Your task to perform on an android device: Search for pizza restaurants on Maps Image 0: 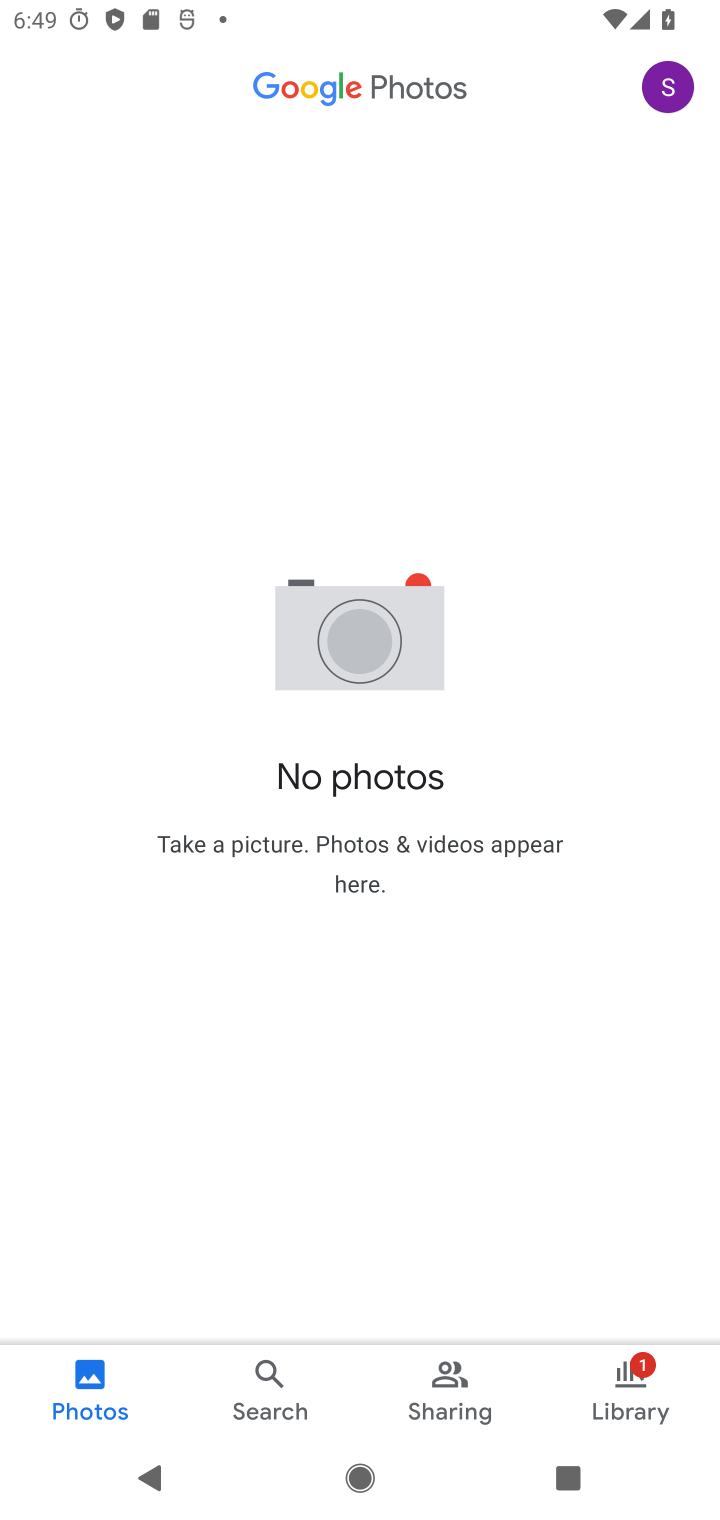
Step 0: press home button
Your task to perform on an android device: Search for pizza restaurants on Maps Image 1: 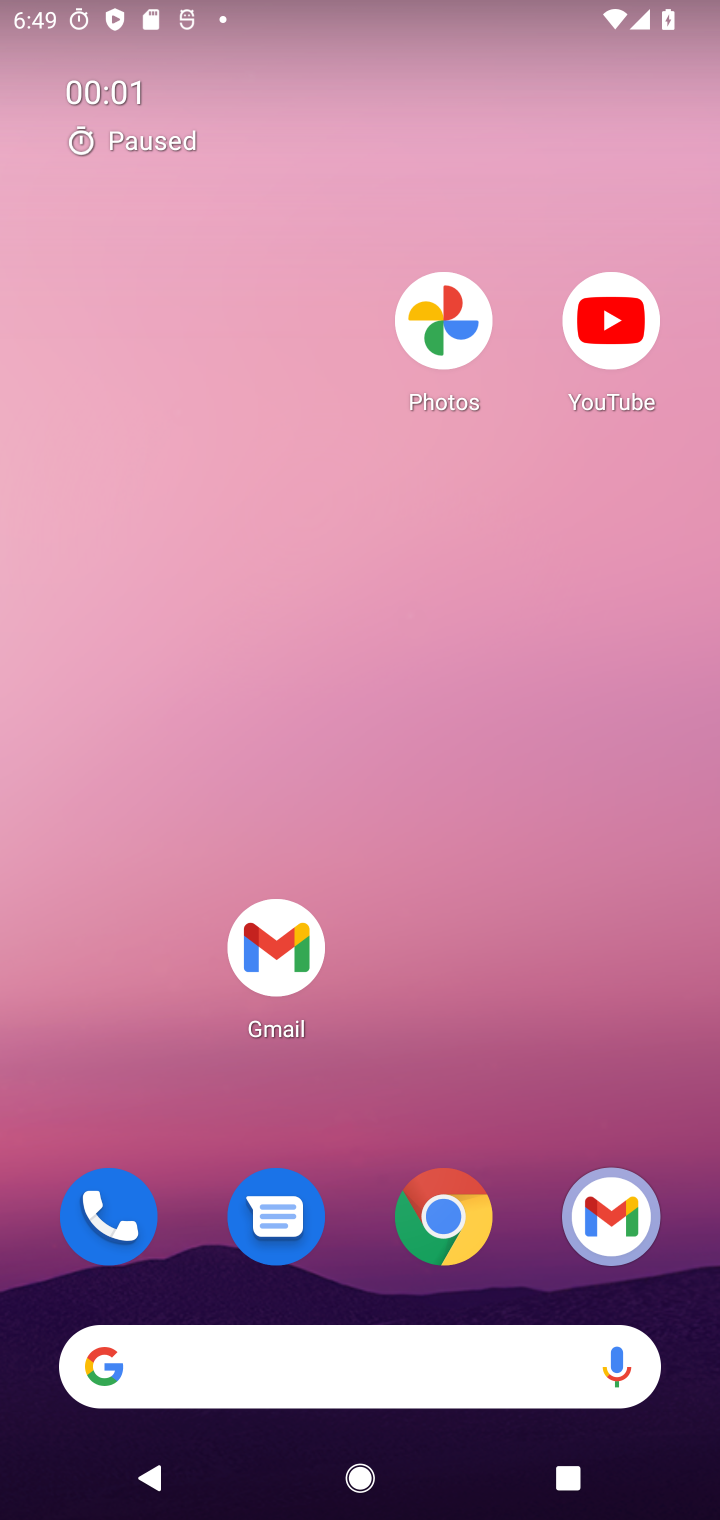
Step 1: drag from (540, 1060) to (565, 463)
Your task to perform on an android device: Search for pizza restaurants on Maps Image 2: 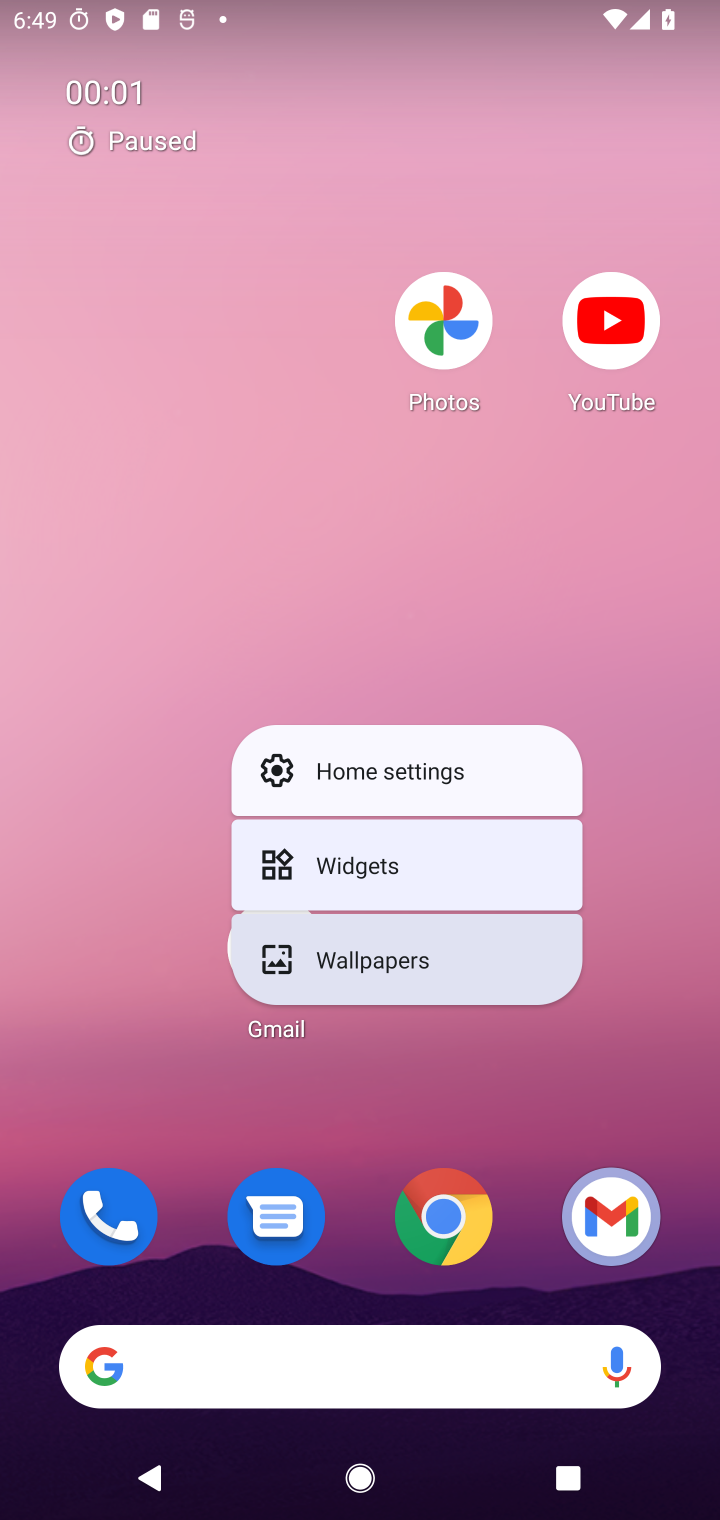
Step 2: click (240, 580)
Your task to perform on an android device: Search for pizza restaurants on Maps Image 3: 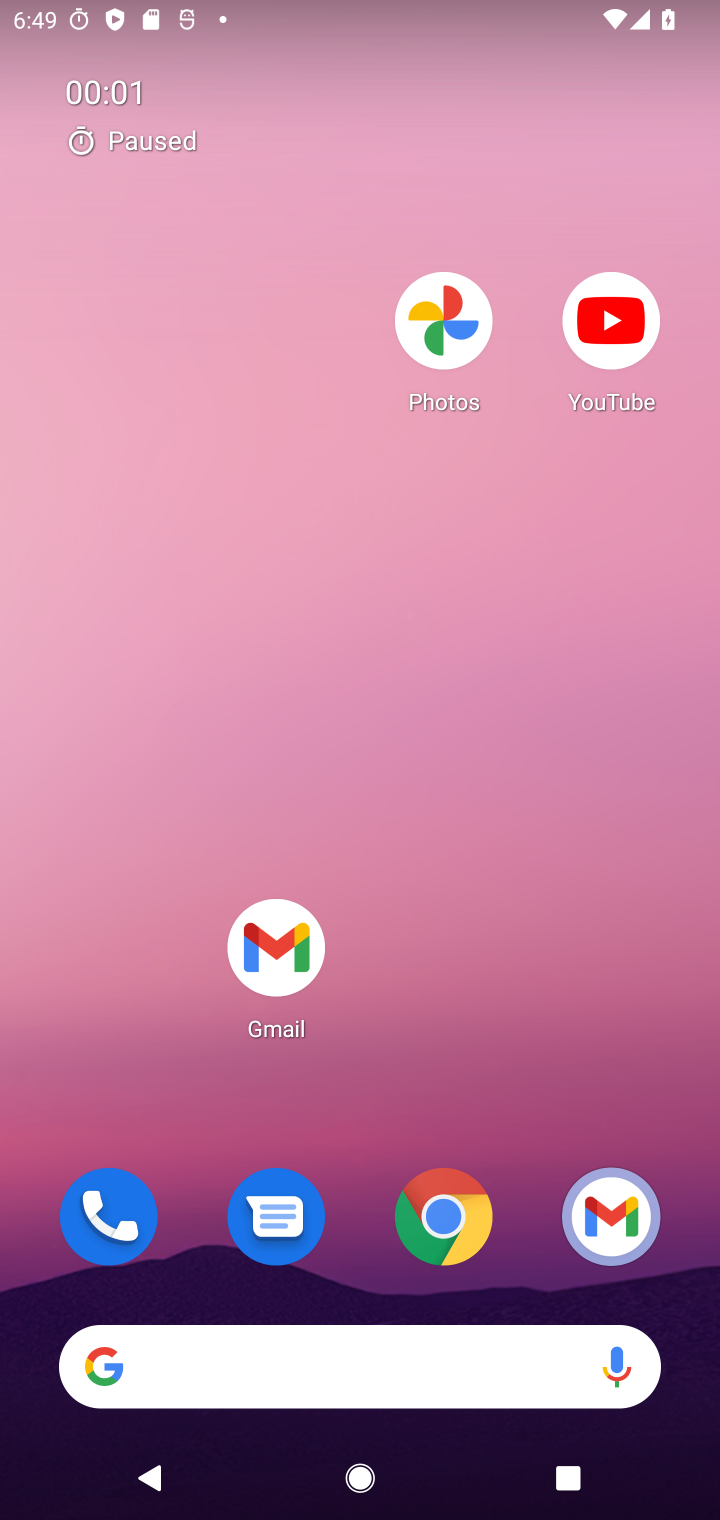
Step 3: drag from (521, 1170) to (591, 393)
Your task to perform on an android device: Search for pizza restaurants on Maps Image 4: 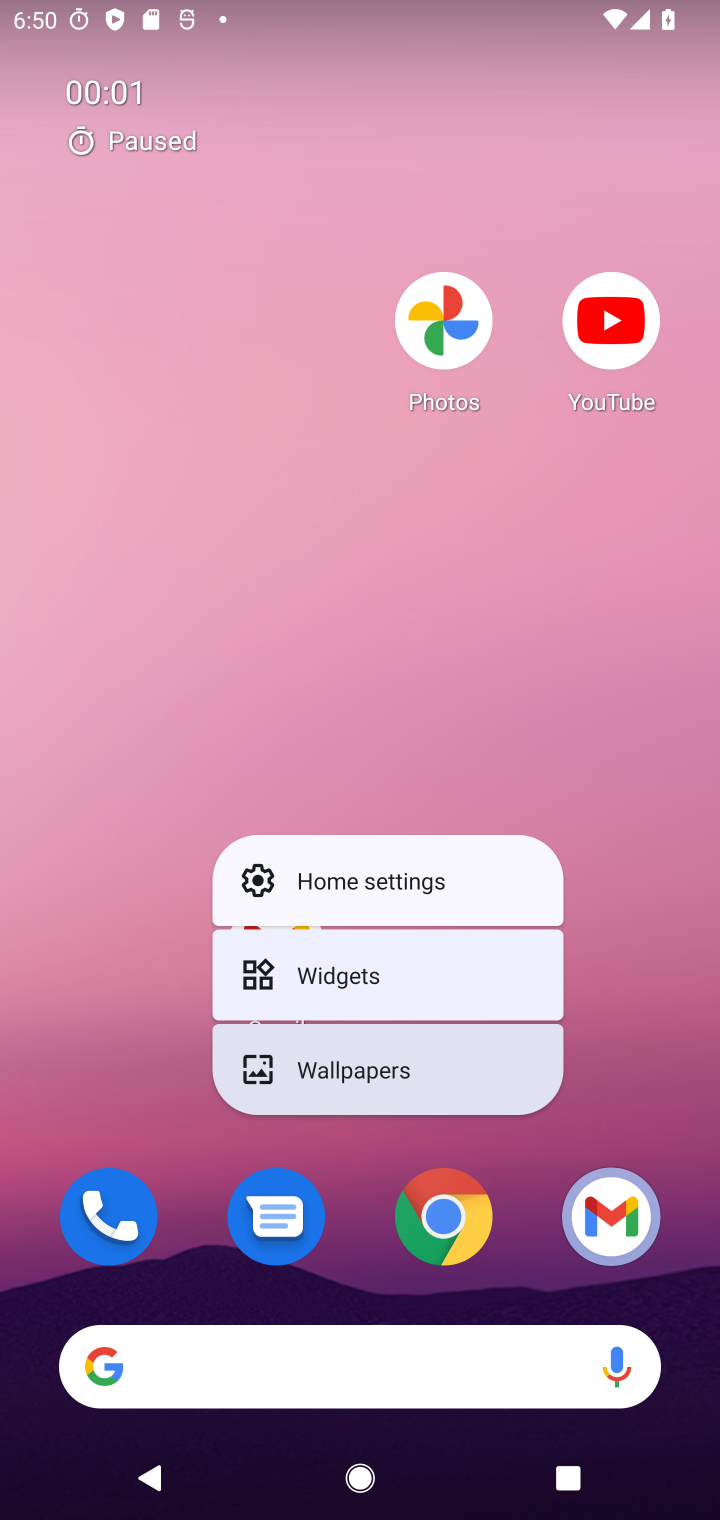
Step 4: click (359, 649)
Your task to perform on an android device: Search for pizza restaurants on Maps Image 5: 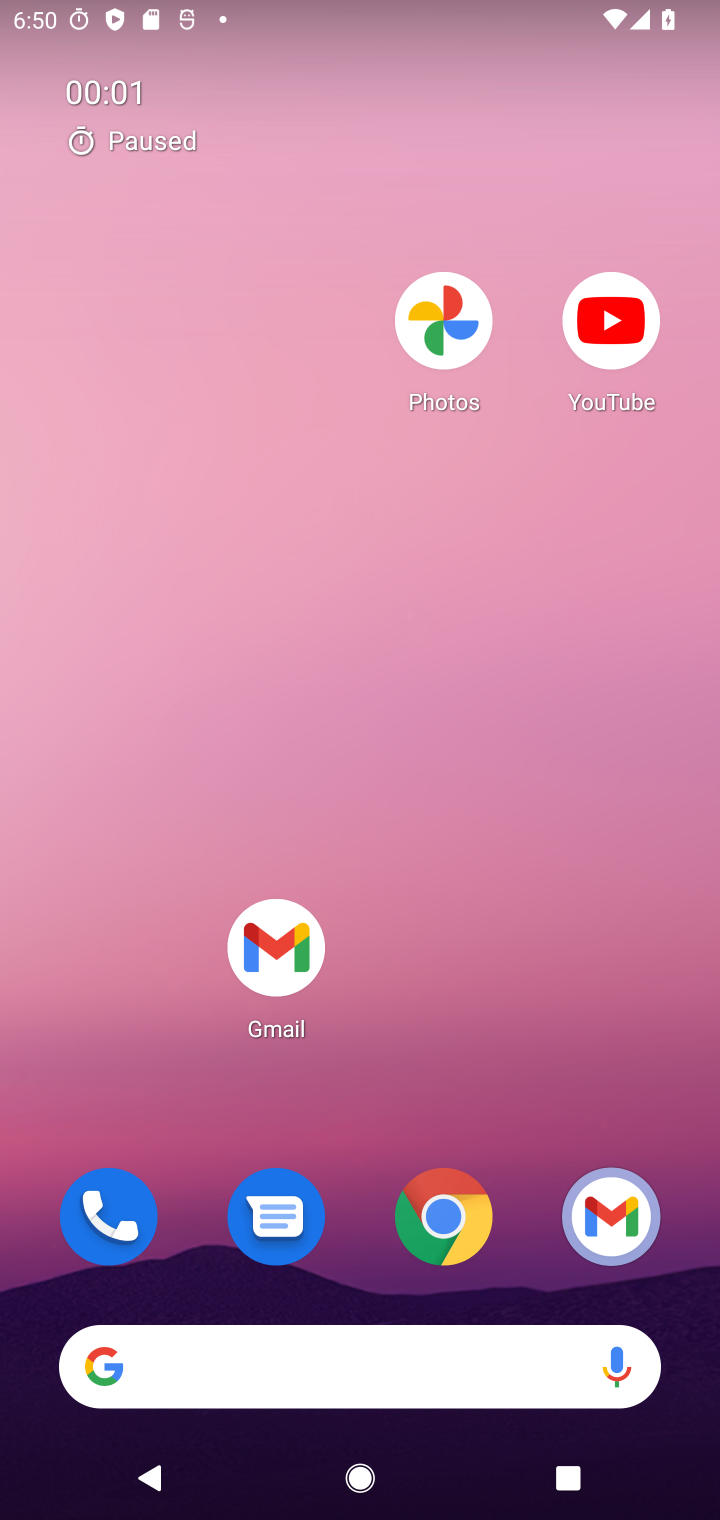
Step 5: drag from (542, 736) to (573, 420)
Your task to perform on an android device: Search for pizza restaurants on Maps Image 6: 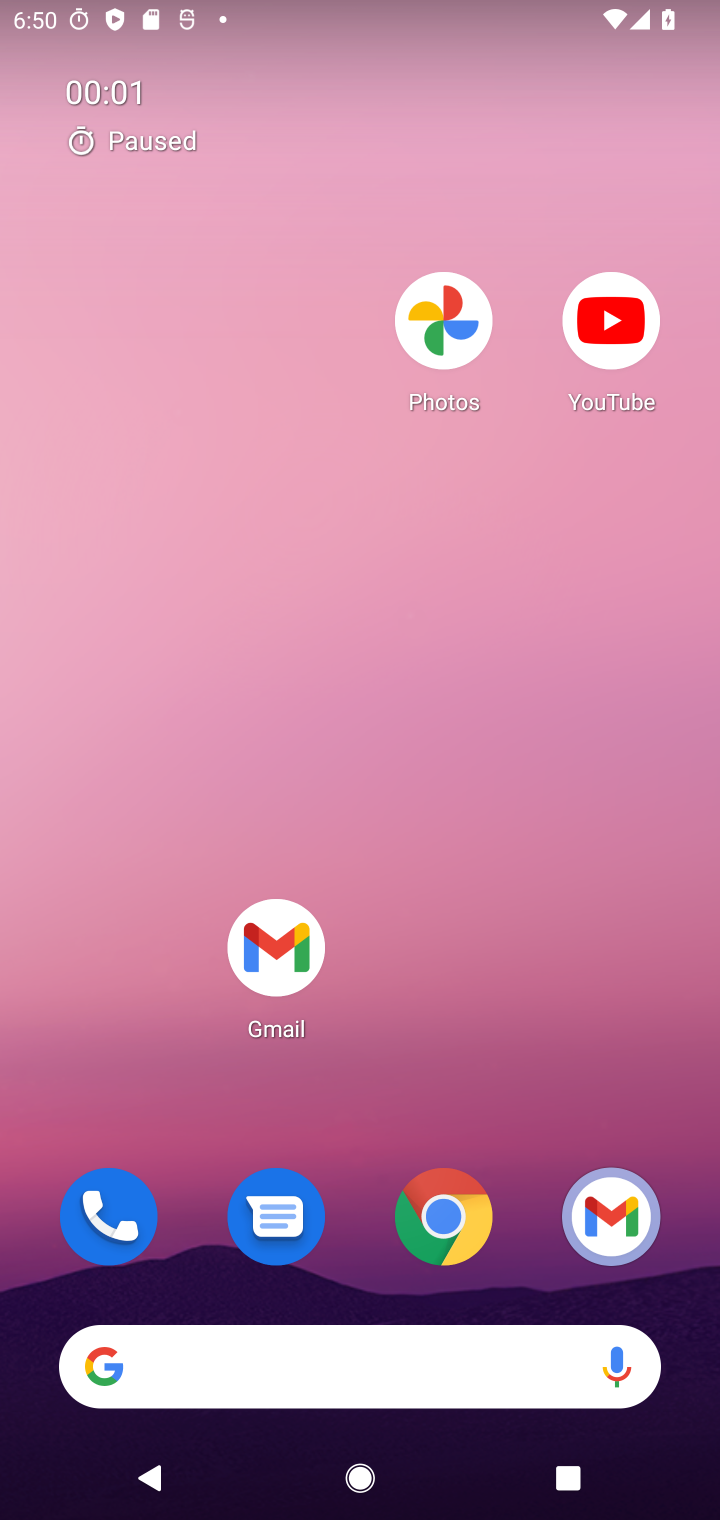
Step 6: drag from (521, 1284) to (580, 489)
Your task to perform on an android device: Search for pizza restaurants on Maps Image 7: 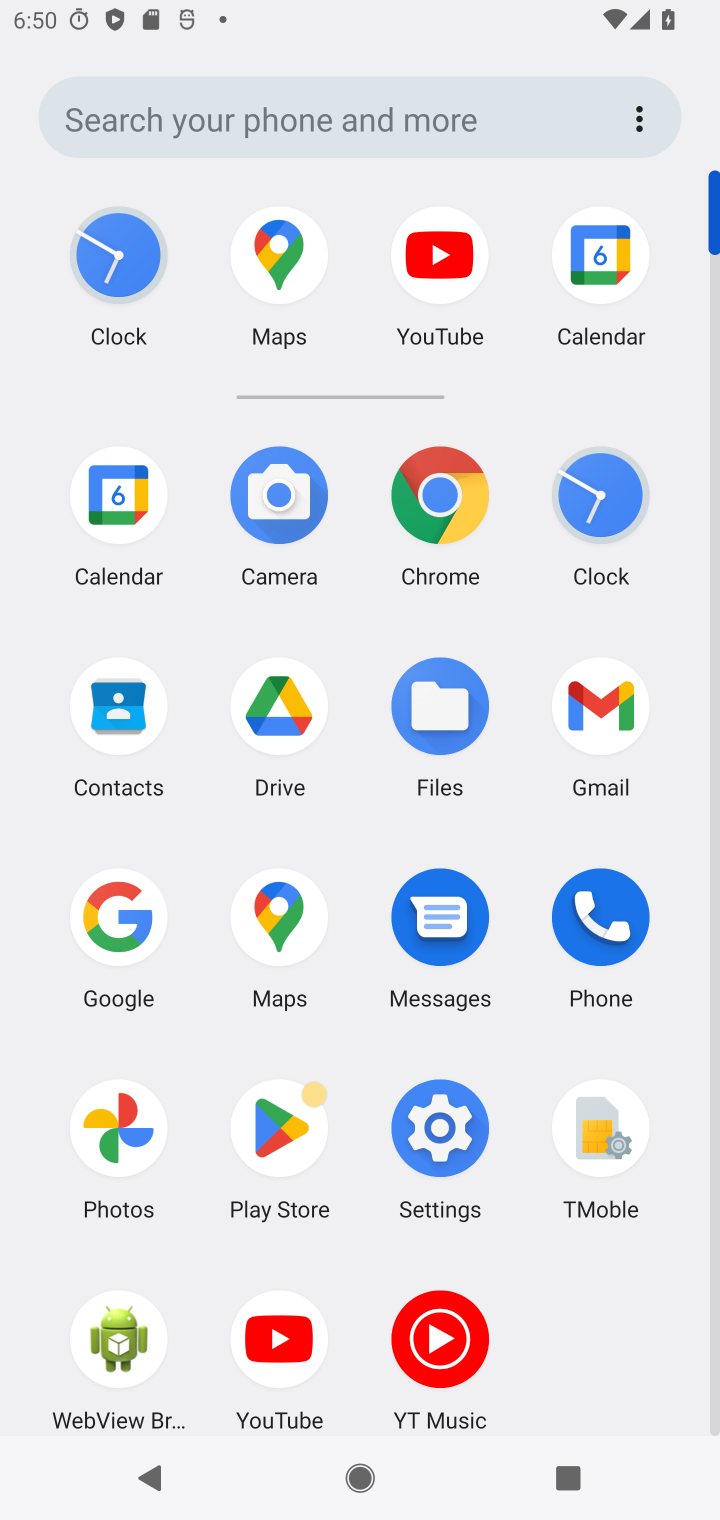
Step 7: click (287, 924)
Your task to perform on an android device: Search for pizza restaurants on Maps Image 8: 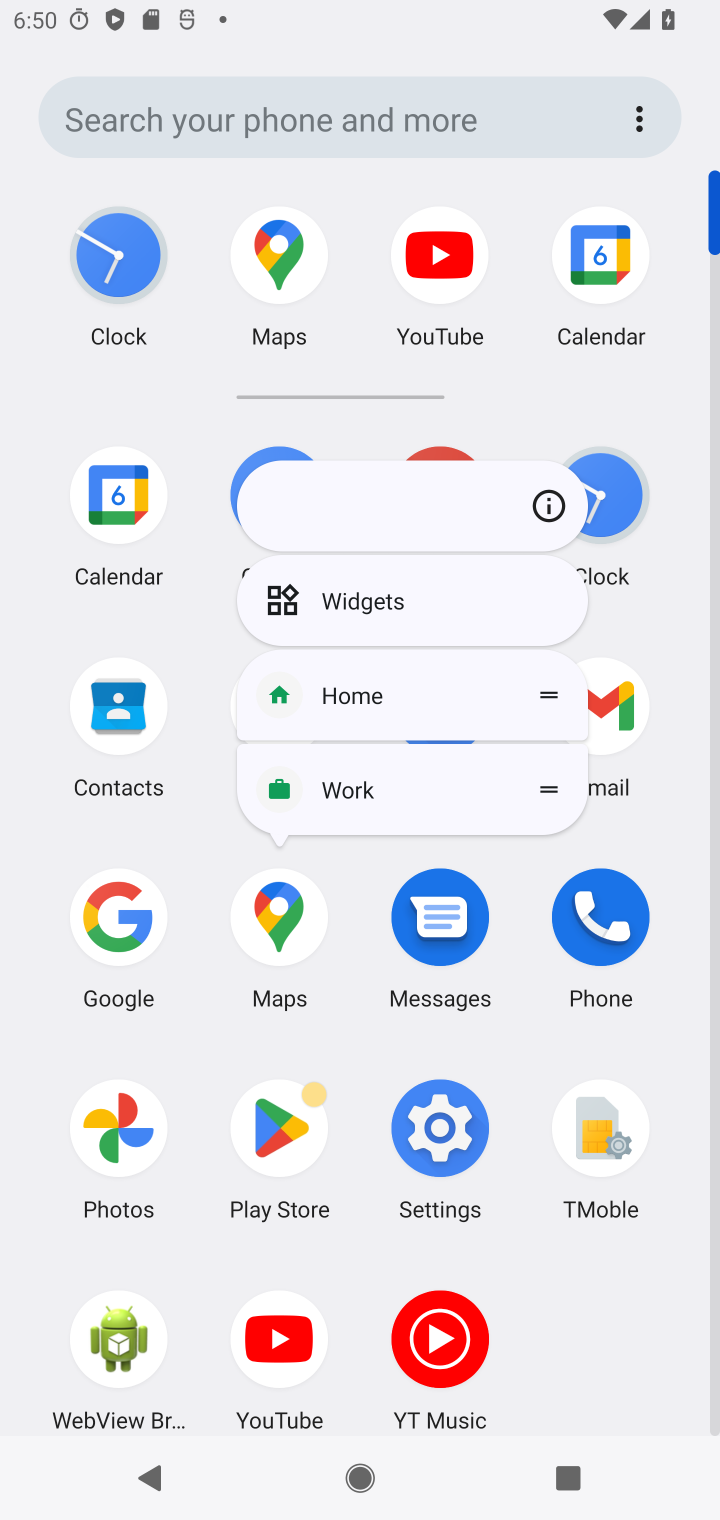
Step 8: click (285, 918)
Your task to perform on an android device: Search for pizza restaurants on Maps Image 9: 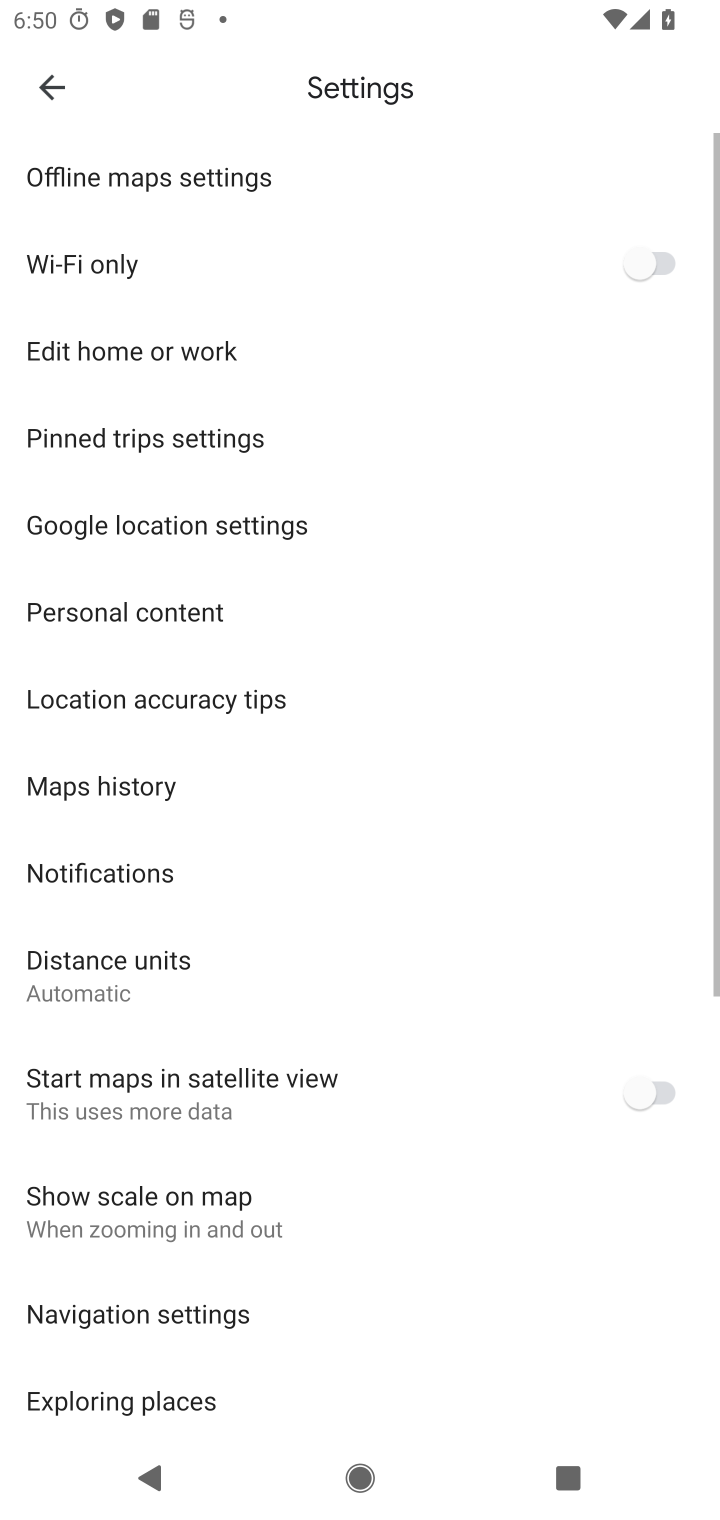
Step 9: click (56, 95)
Your task to perform on an android device: Search for pizza restaurants on Maps Image 10: 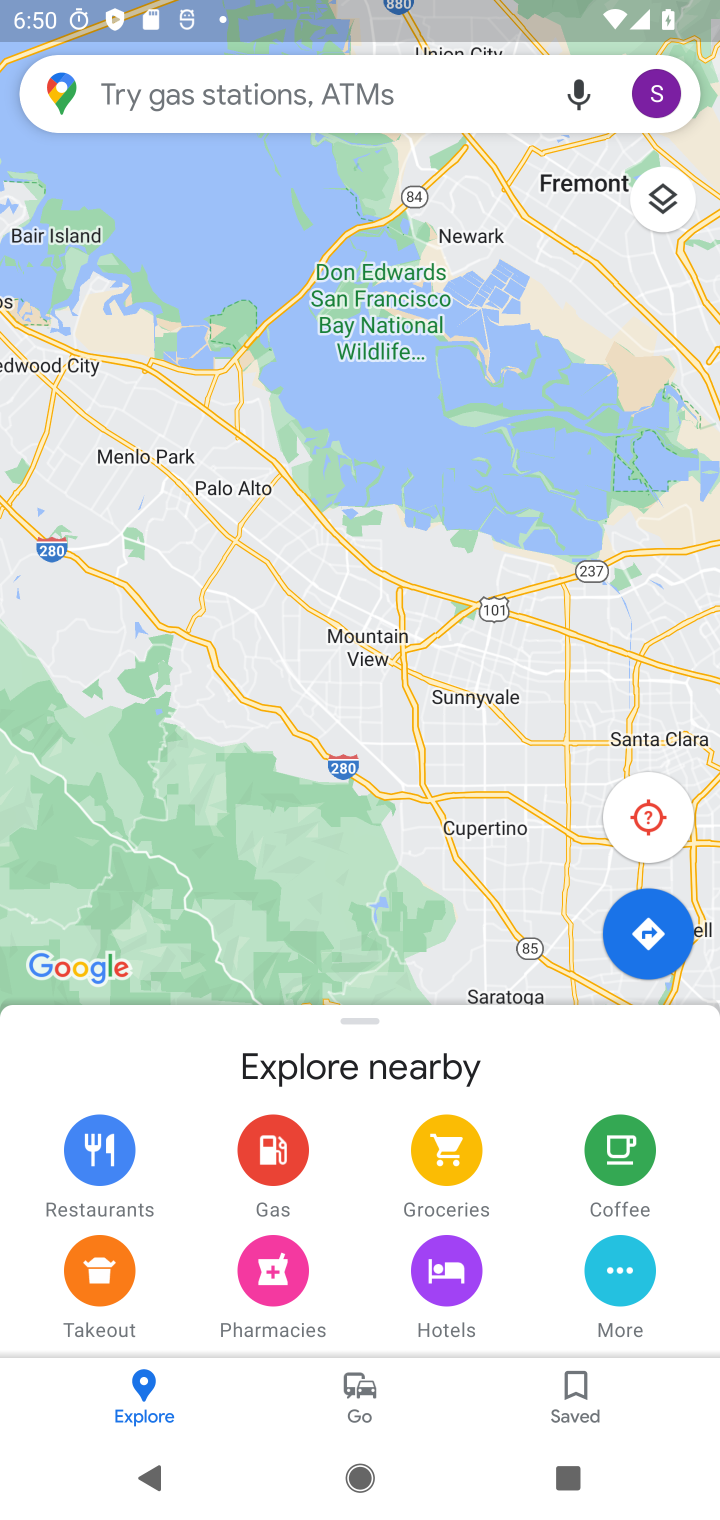
Step 10: click (313, 98)
Your task to perform on an android device: Search for pizza restaurants on Maps Image 11: 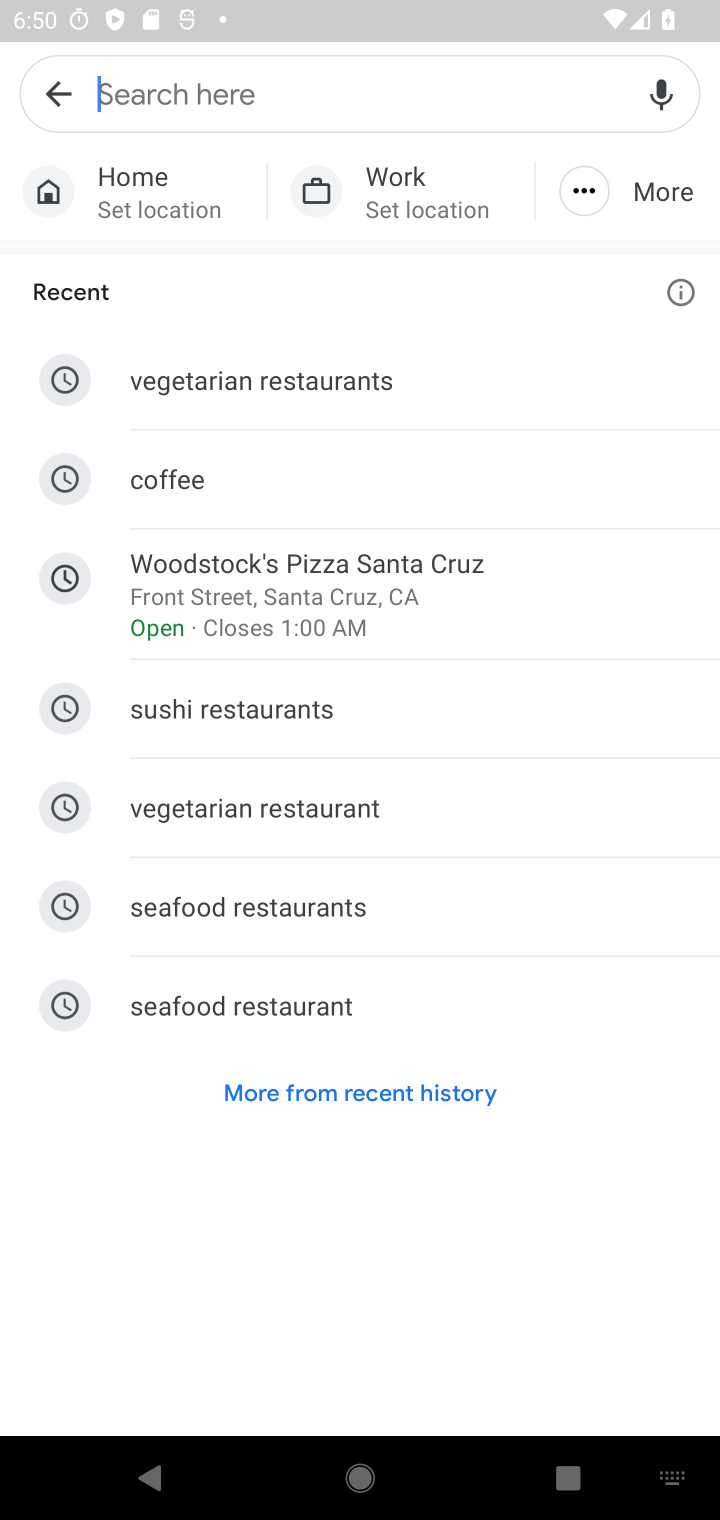
Step 11: type "pizz restaurants"
Your task to perform on an android device: Search for pizza restaurants on Maps Image 12: 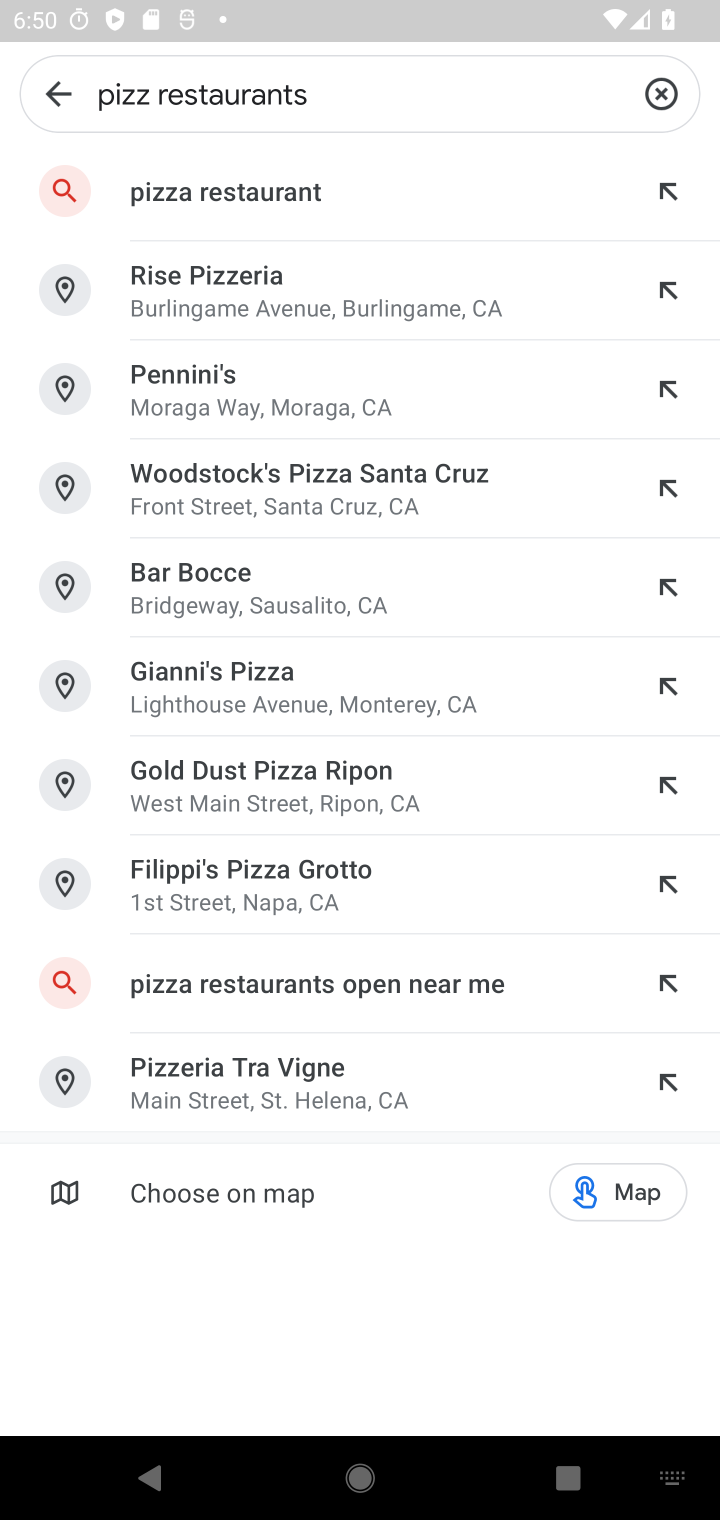
Step 12: press enter
Your task to perform on an android device: Search for pizza restaurants on Maps Image 13: 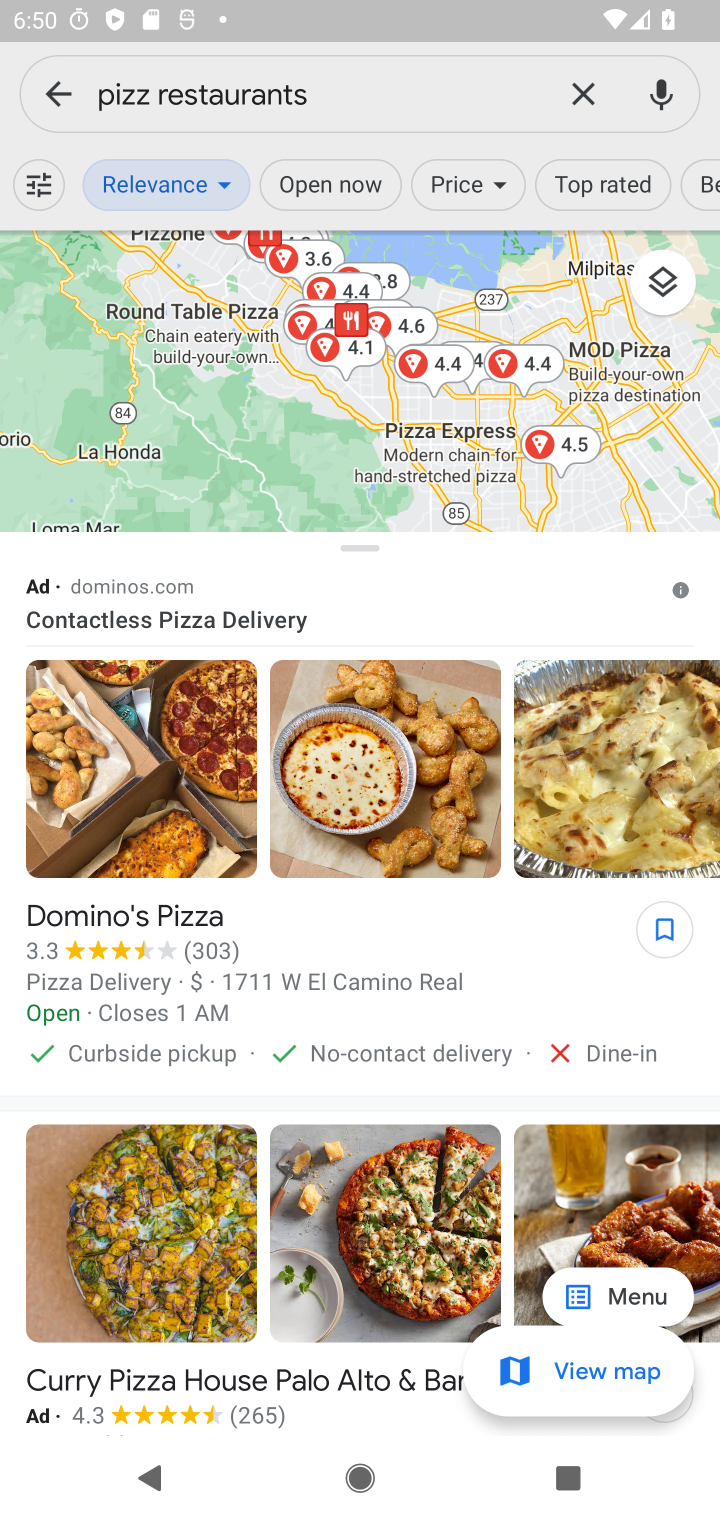
Step 13: task complete